Your task to perform on an android device: read, delete, or share a saved page in the chrome app Image 0: 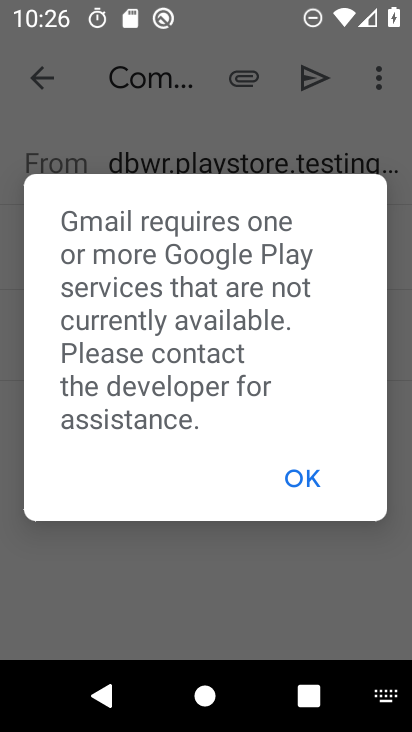
Step 0: press home button
Your task to perform on an android device: read, delete, or share a saved page in the chrome app Image 1: 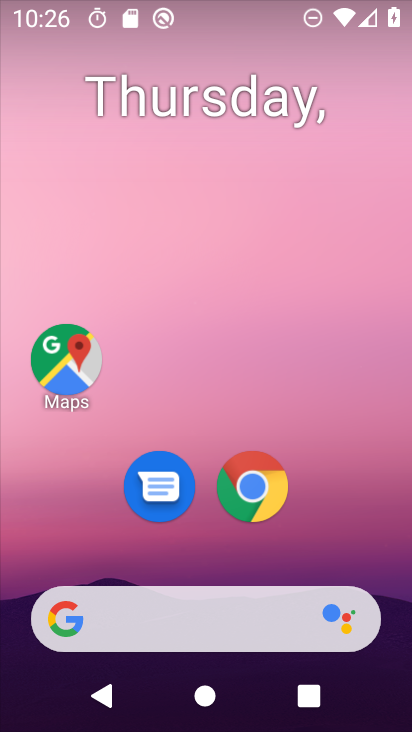
Step 1: click (263, 482)
Your task to perform on an android device: read, delete, or share a saved page in the chrome app Image 2: 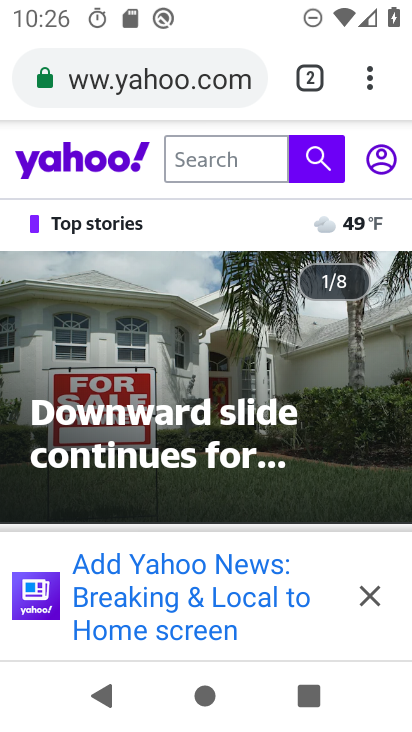
Step 2: drag from (370, 77) to (116, 503)
Your task to perform on an android device: read, delete, or share a saved page in the chrome app Image 3: 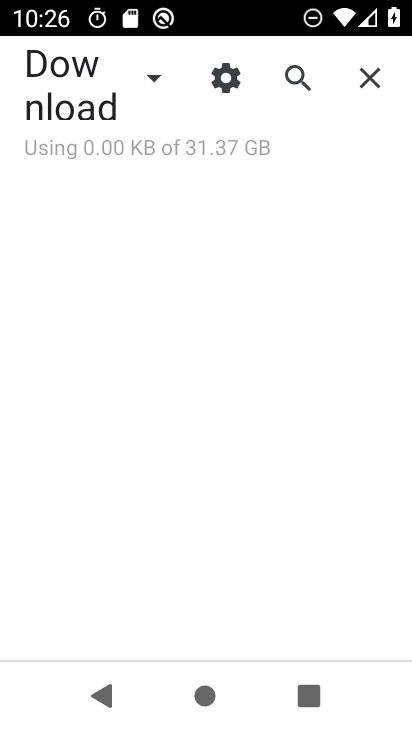
Step 3: click (159, 75)
Your task to perform on an android device: read, delete, or share a saved page in the chrome app Image 4: 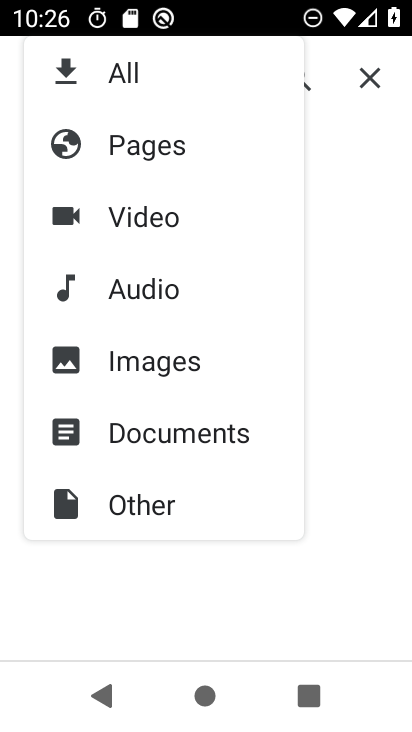
Step 4: click (133, 140)
Your task to perform on an android device: read, delete, or share a saved page in the chrome app Image 5: 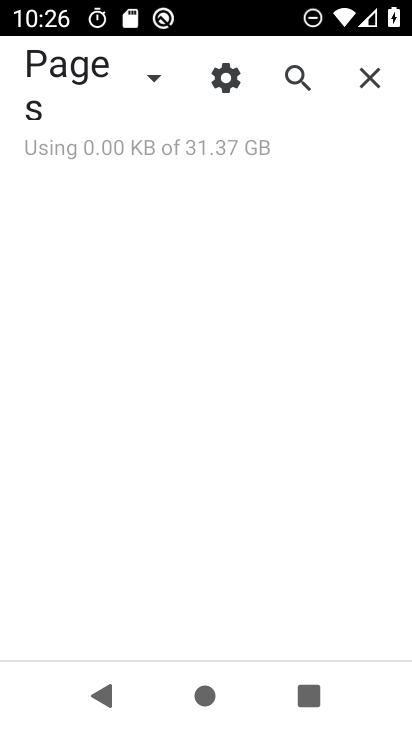
Step 5: task complete